Your task to perform on an android device: Do I have any events today? Image 0: 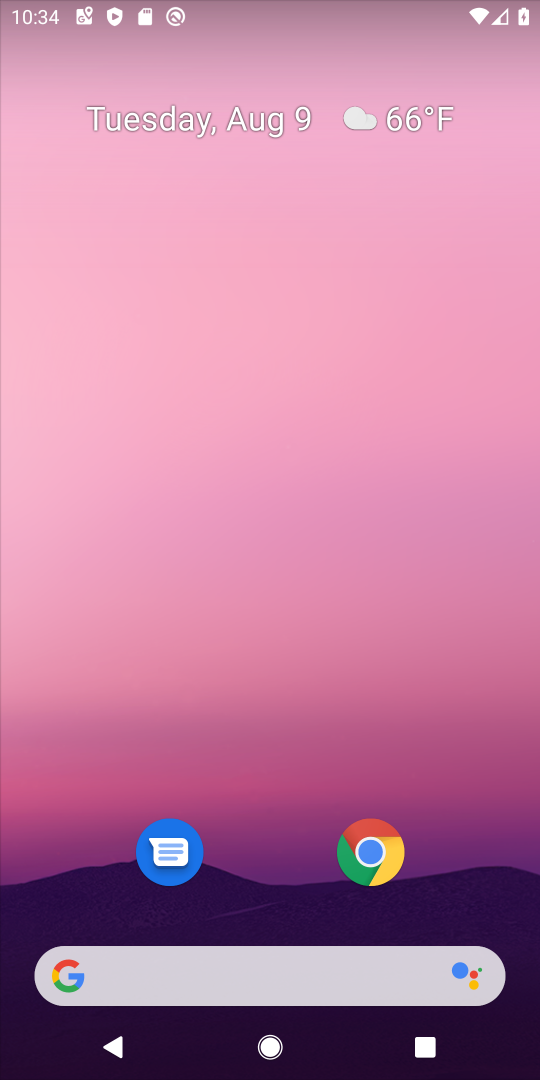
Step 0: click (369, 118)
Your task to perform on an android device: Do I have any events today? Image 1: 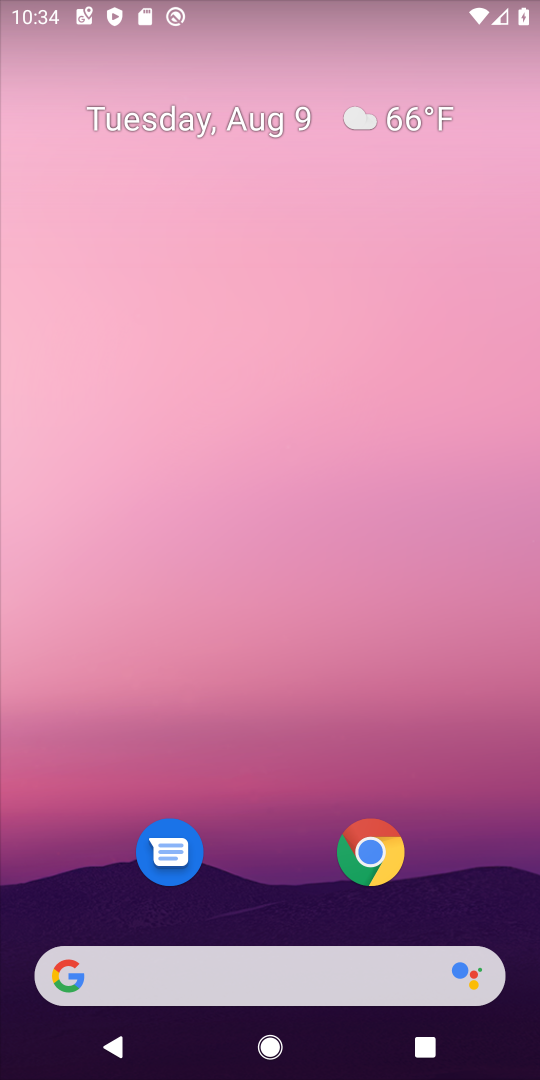
Step 1: click (369, 118)
Your task to perform on an android device: Do I have any events today? Image 2: 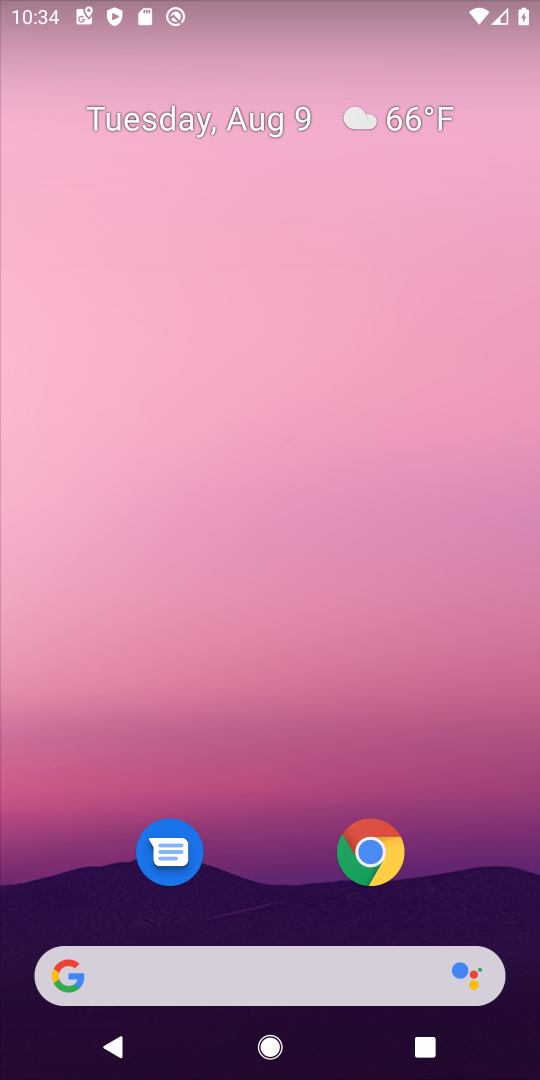
Step 2: click (406, 121)
Your task to perform on an android device: Do I have any events today? Image 3: 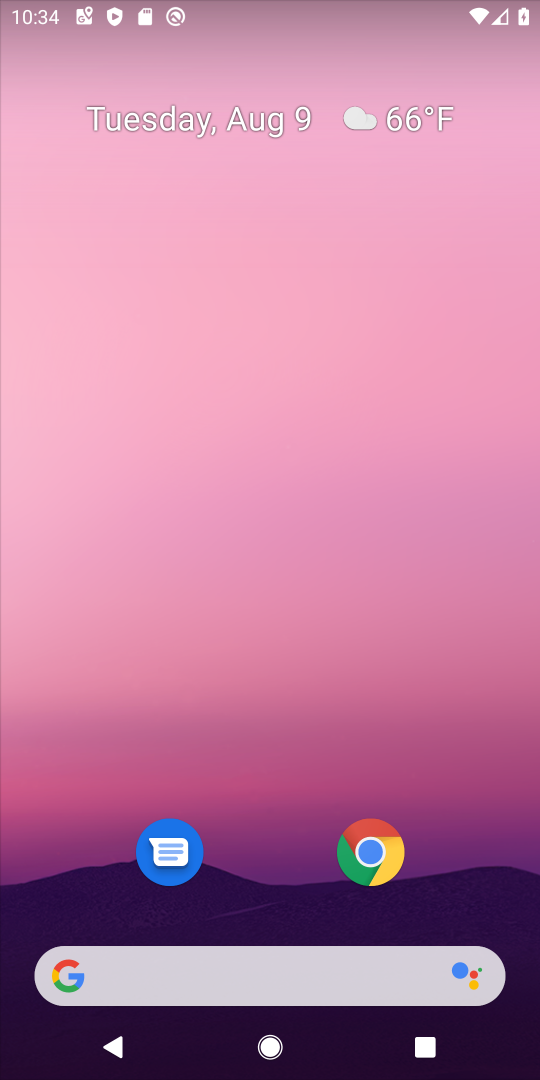
Step 3: click (406, 121)
Your task to perform on an android device: Do I have any events today? Image 4: 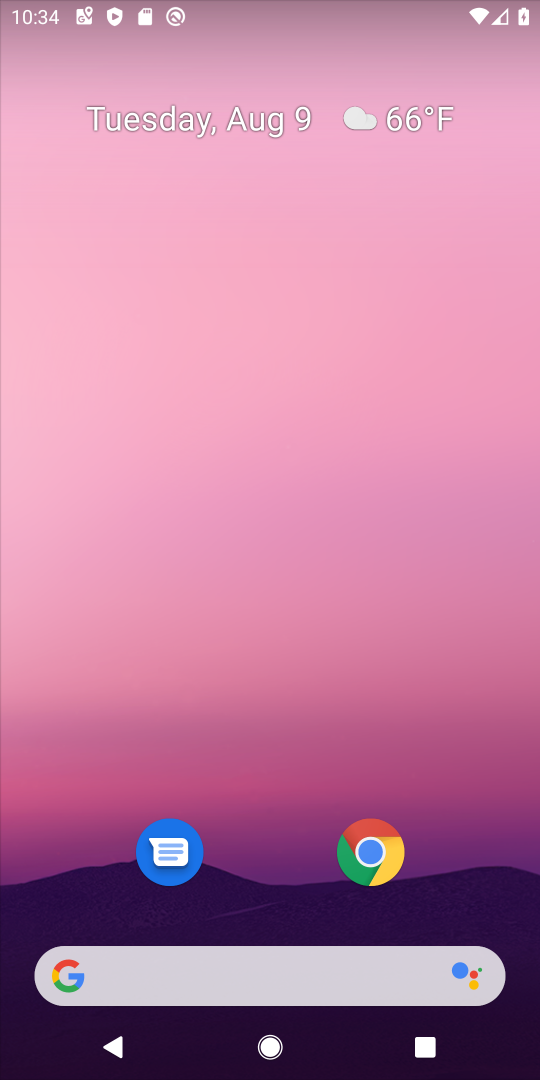
Step 4: click (406, 140)
Your task to perform on an android device: Do I have any events today? Image 5: 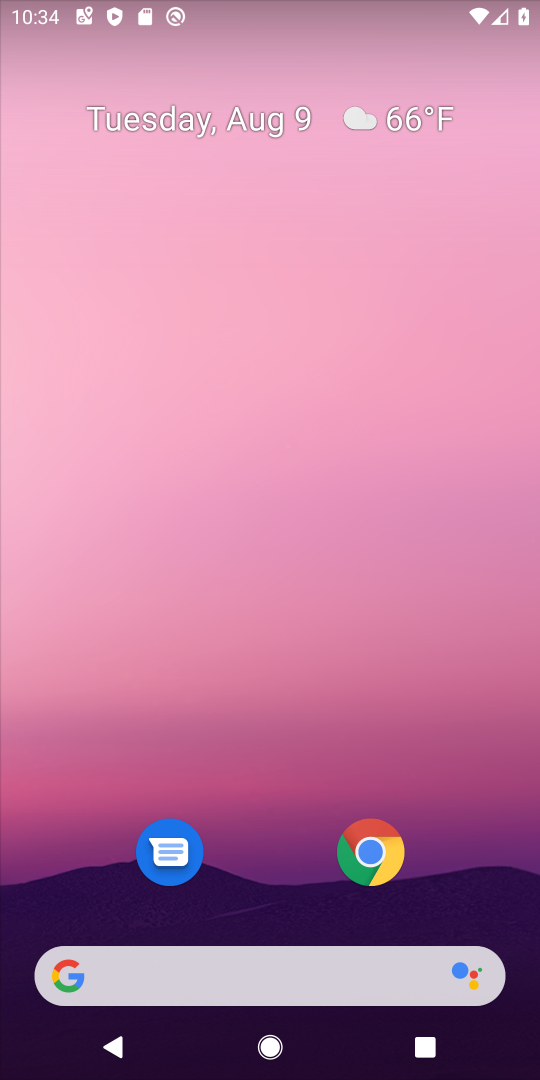
Step 5: click (446, 118)
Your task to perform on an android device: Do I have any events today? Image 6: 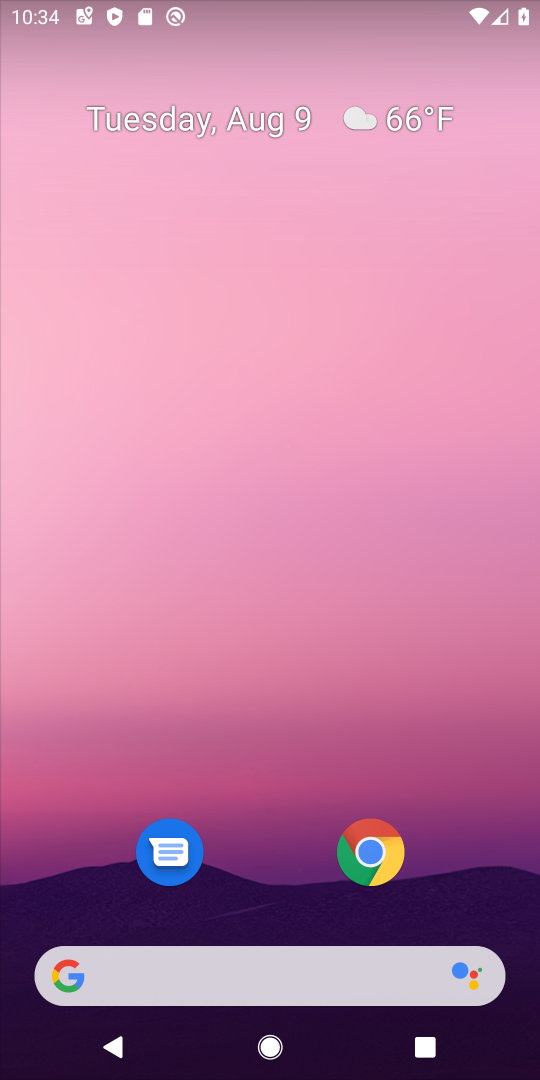
Step 6: click (407, 109)
Your task to perform on an android device: Do I have any events today? Image 7: 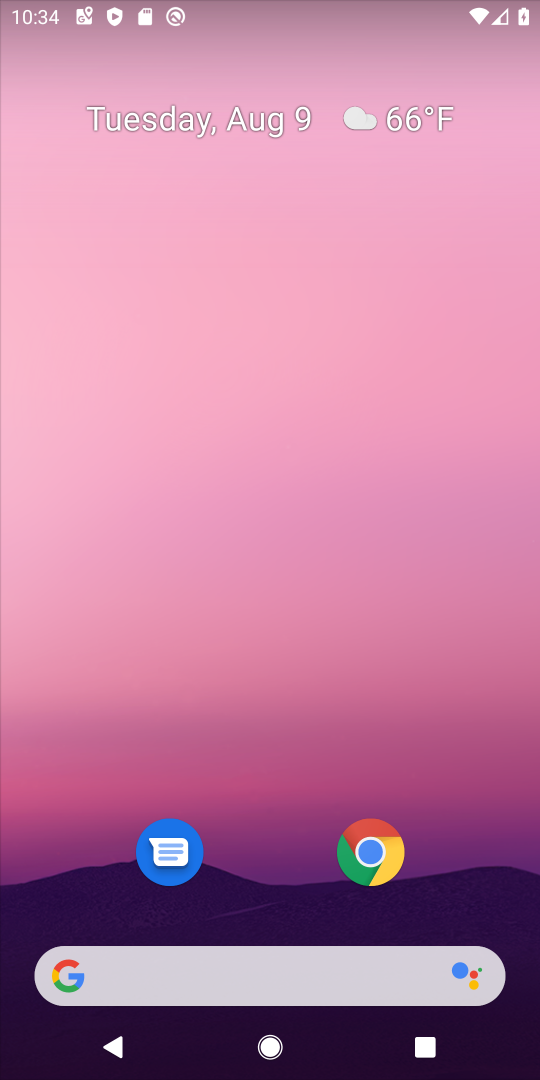
Step 7: click (210, 979)
Your task to perform on an android device: Do I have any events today? Image 8: 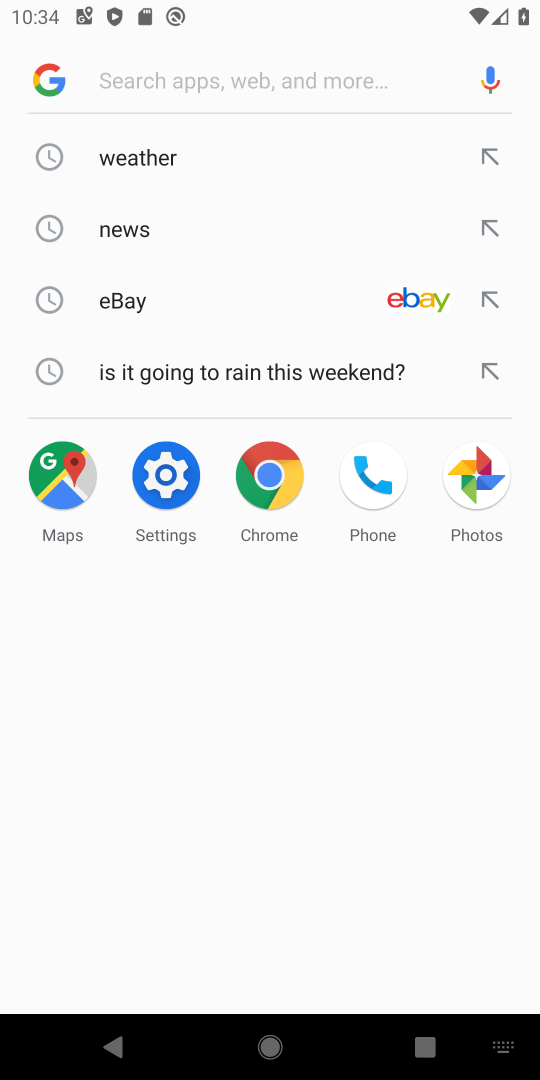
Step 8: press home button
Your task to perform on an android device: Do I have any events today? Image 9: 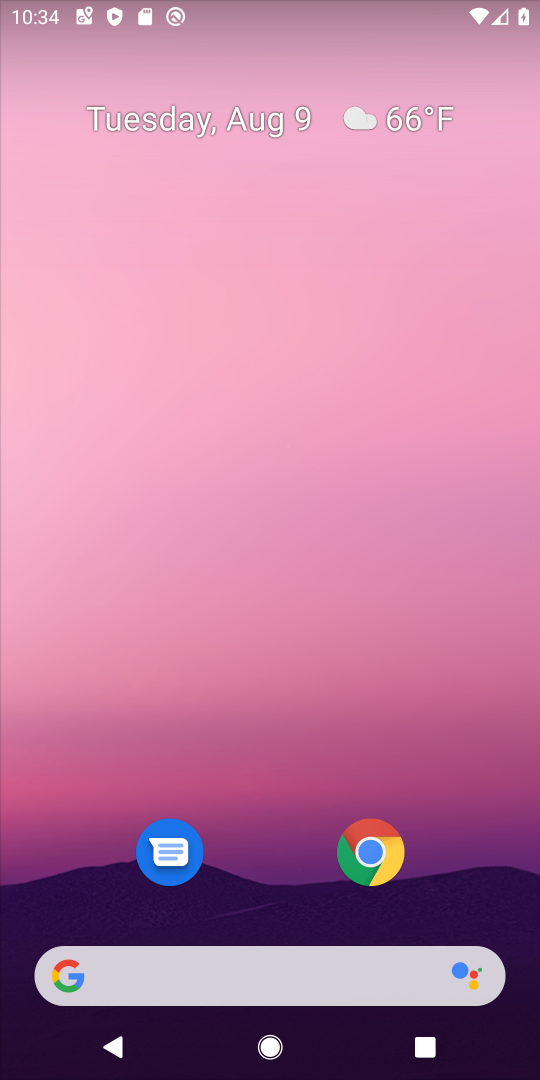
Step 9: click (139, 108)
Your task to perform on an android device: Do I have any events today? Image 10: 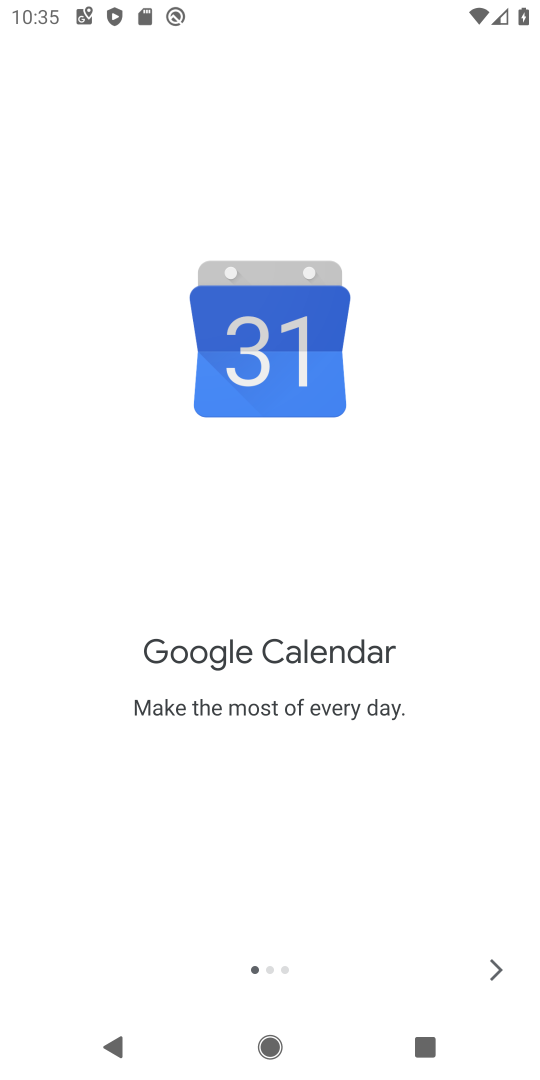
Step 10: click (496, 974)
Your task to perform on an android device: Do I have any events today? Image 11: 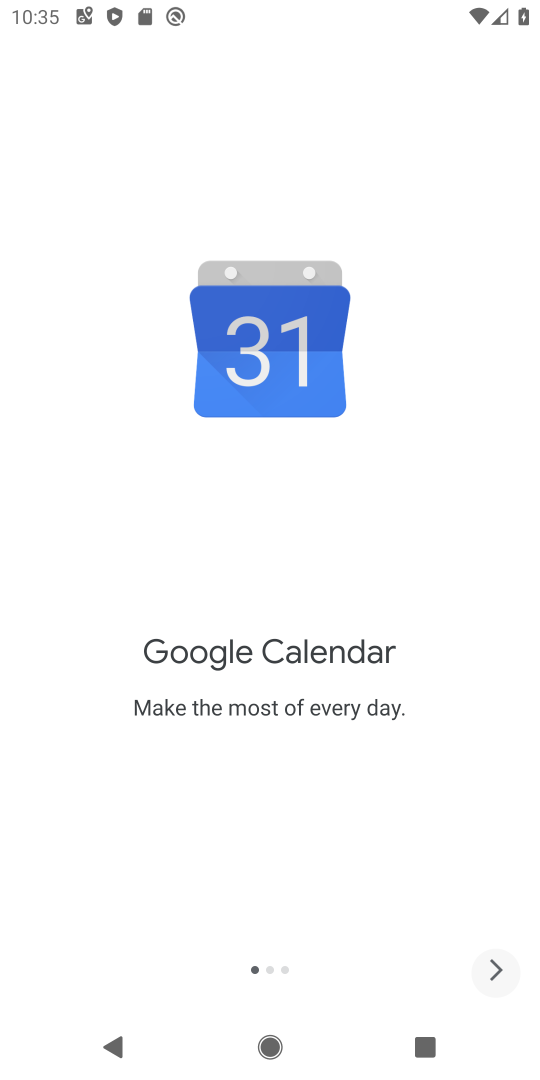
Step 11: click (496, 974)
Your task to perform on an android device: Do I have any events today? Image 12: 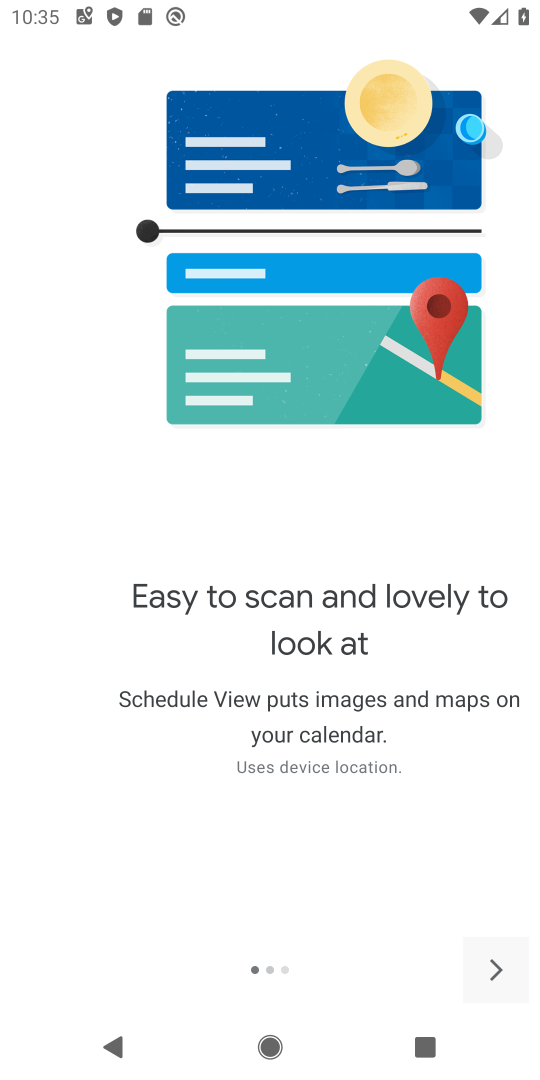
Step 12: click (496, 974)
Your task to perform on an android device: Do I have any events today? Image 13: 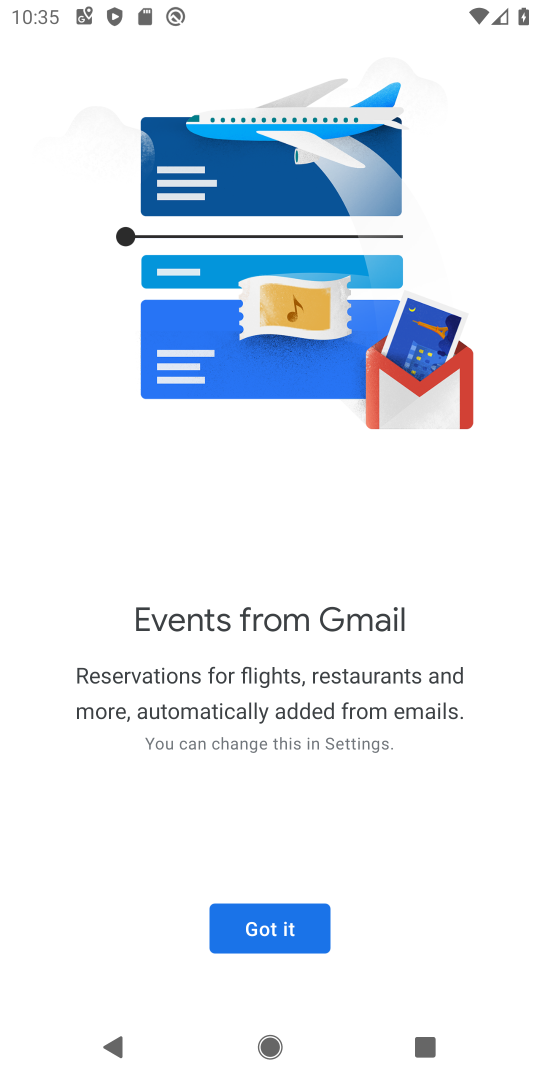
Step 13: click (281, 923)
Your task to perform on an android device: Do I have any events today? Image 14: 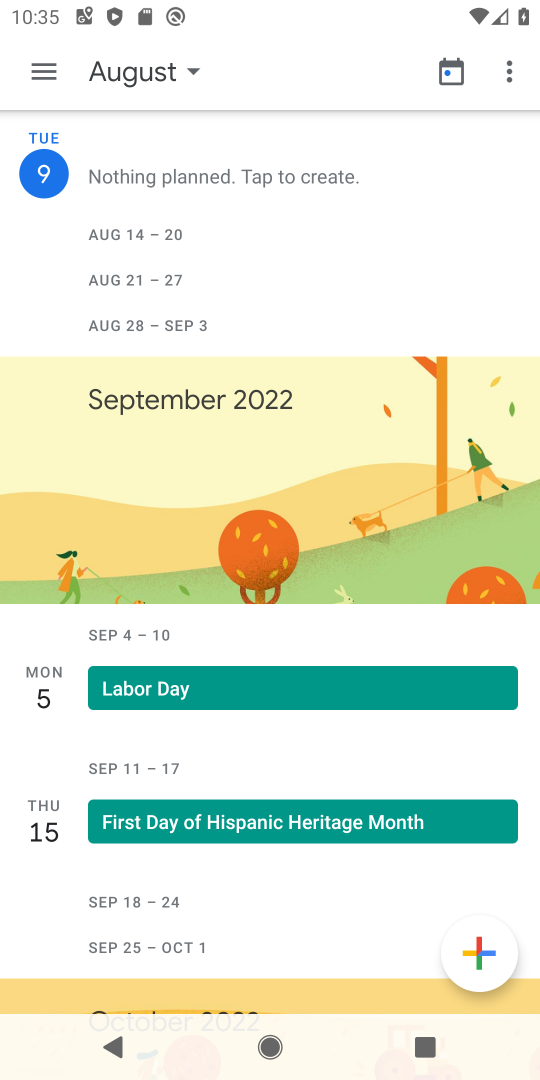
Step 14: click (50, 78)
Your task to perform on an android device: Do I have any events today? Image 15: 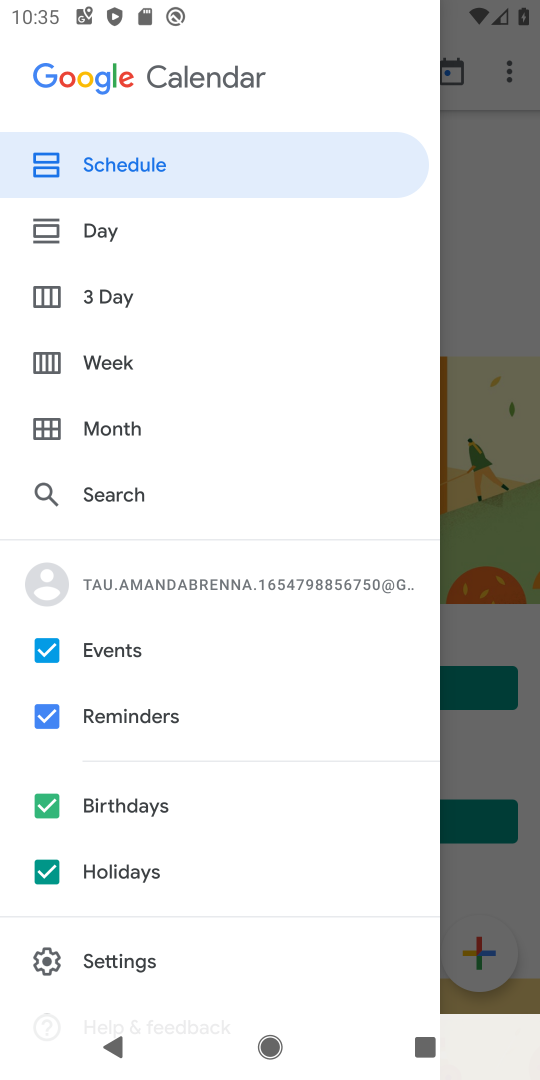
Step 15: click (50, 714)
Your task to perform on an android device: Do I have any events today? Image 16: 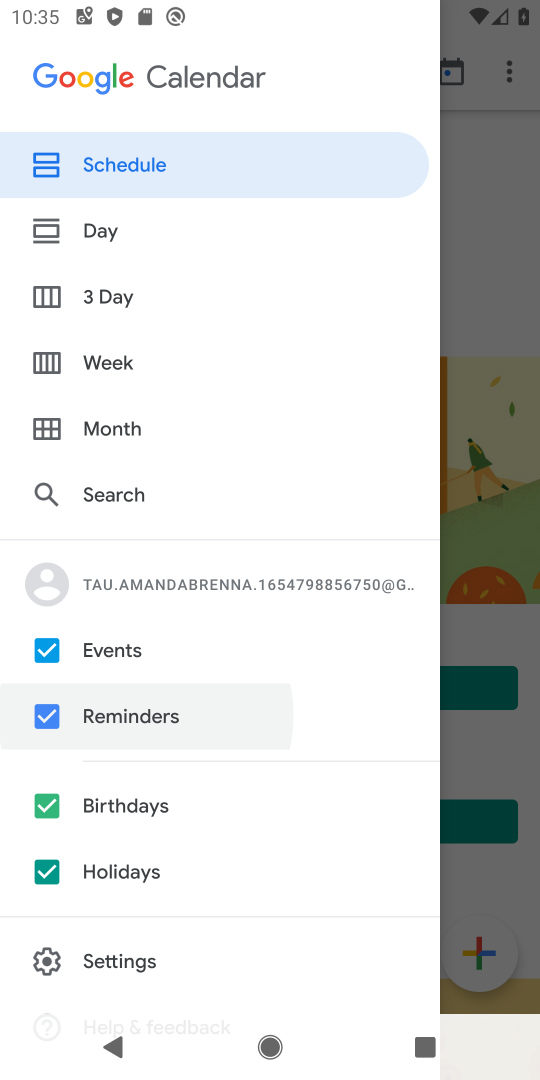
Step 16: click (40, 810)
Your task to perform on an android device: Do I have any events today? Image 17: 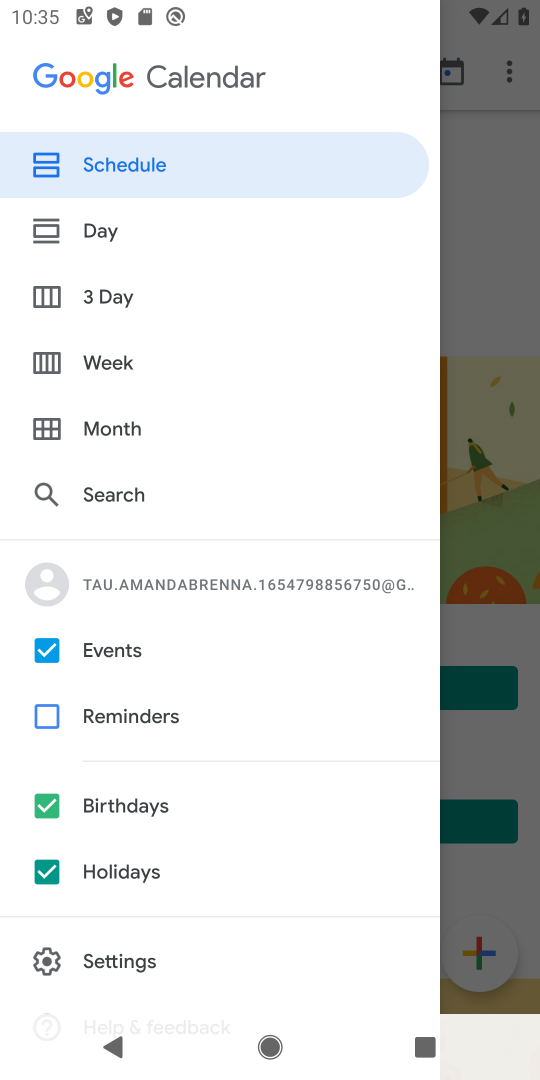
Step 17: click (48, 868)
Your task to perform on an android device: Do I have any events today? Image 18: 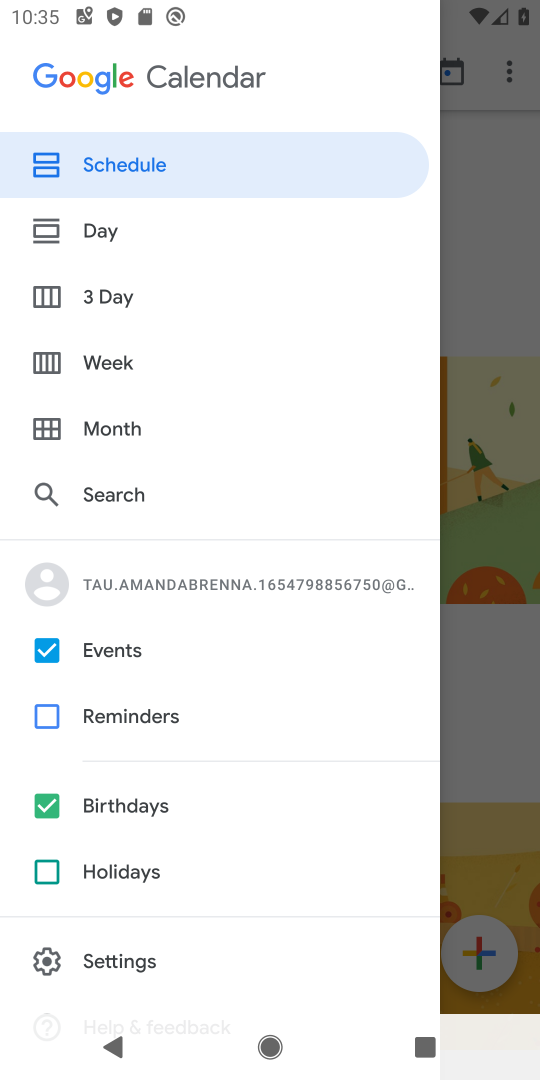
Step 18: click (48, 810)
Your task to perform on an android device: Do I have any events today? Image 19: 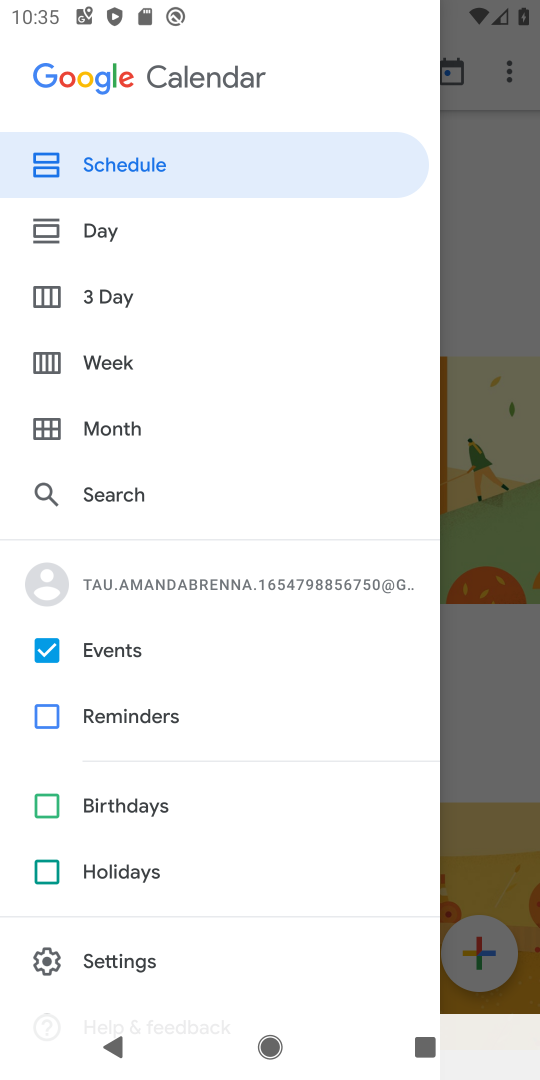
Step 19: click (146, 220)
Your task to perform on an android device: Do I have any events today? Image 20: 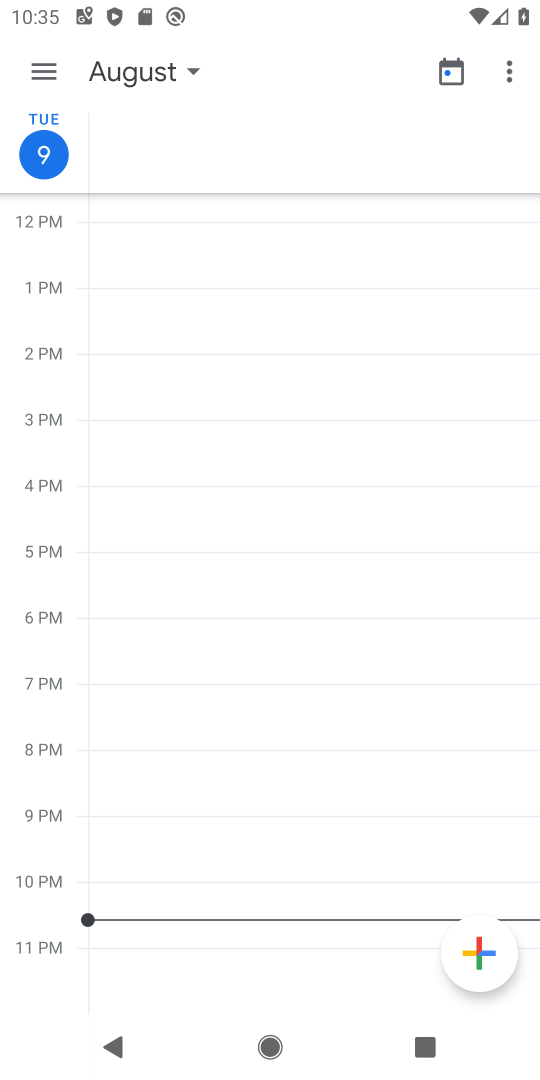
Step 20: task complete